Your task to perform on an android device: see tabs open on other devices in the chrome app Image 0: 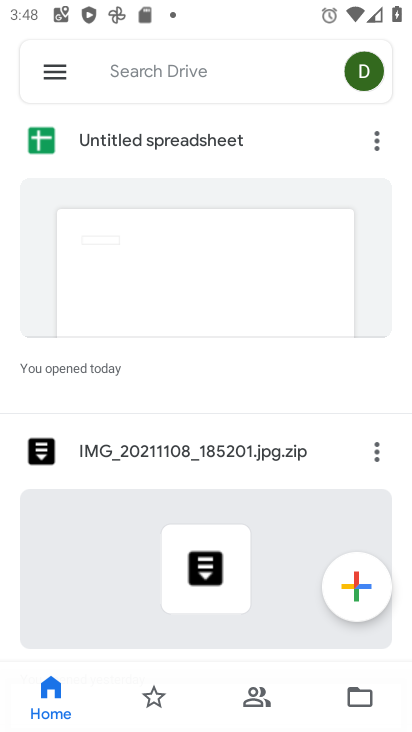
Step 0: press home button
Your task to perform on an android device: see tabs open on other devices in the chrome app Image 1: 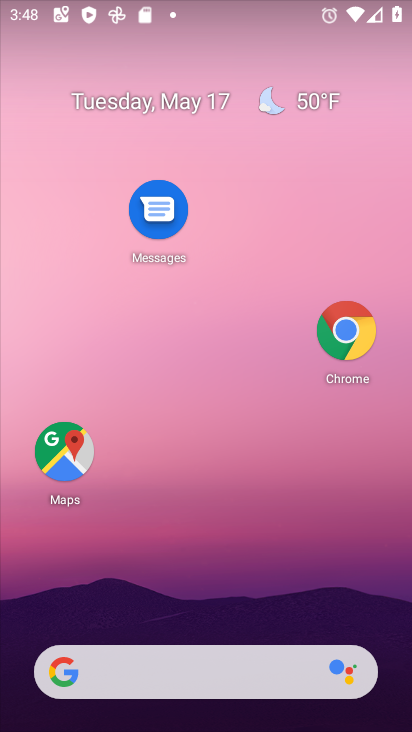
Step 1: click (355, 327)
Your task to perform on an android device: see tabs open on other devices in the chrome app Image 2: 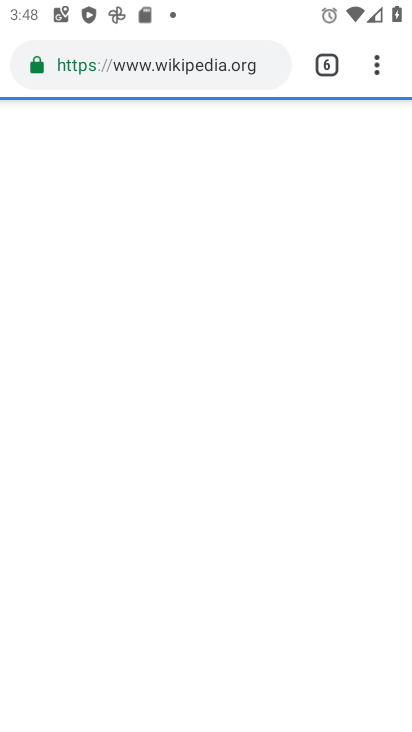
Step 2: click (378, 63)
Your task to perform on an android device: see tabs open on other devices in the chrome app Image 3: 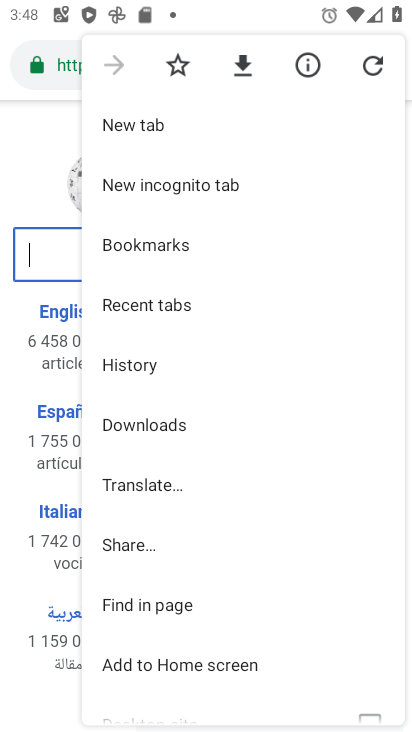
Step 3: click (124, 295)
Your task to perform on an android device: see tabs open on other devices in the chrome app Image 4: 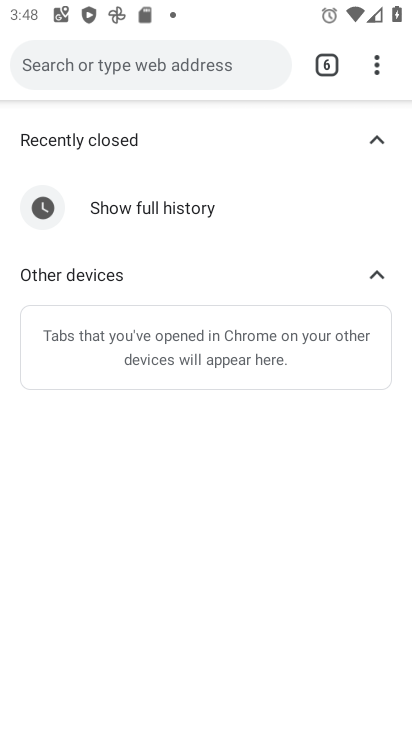
Step 4: task complete